Your task to perform on an android device: open app "Skype" (install if not already installed) and go to login screen Image 0: 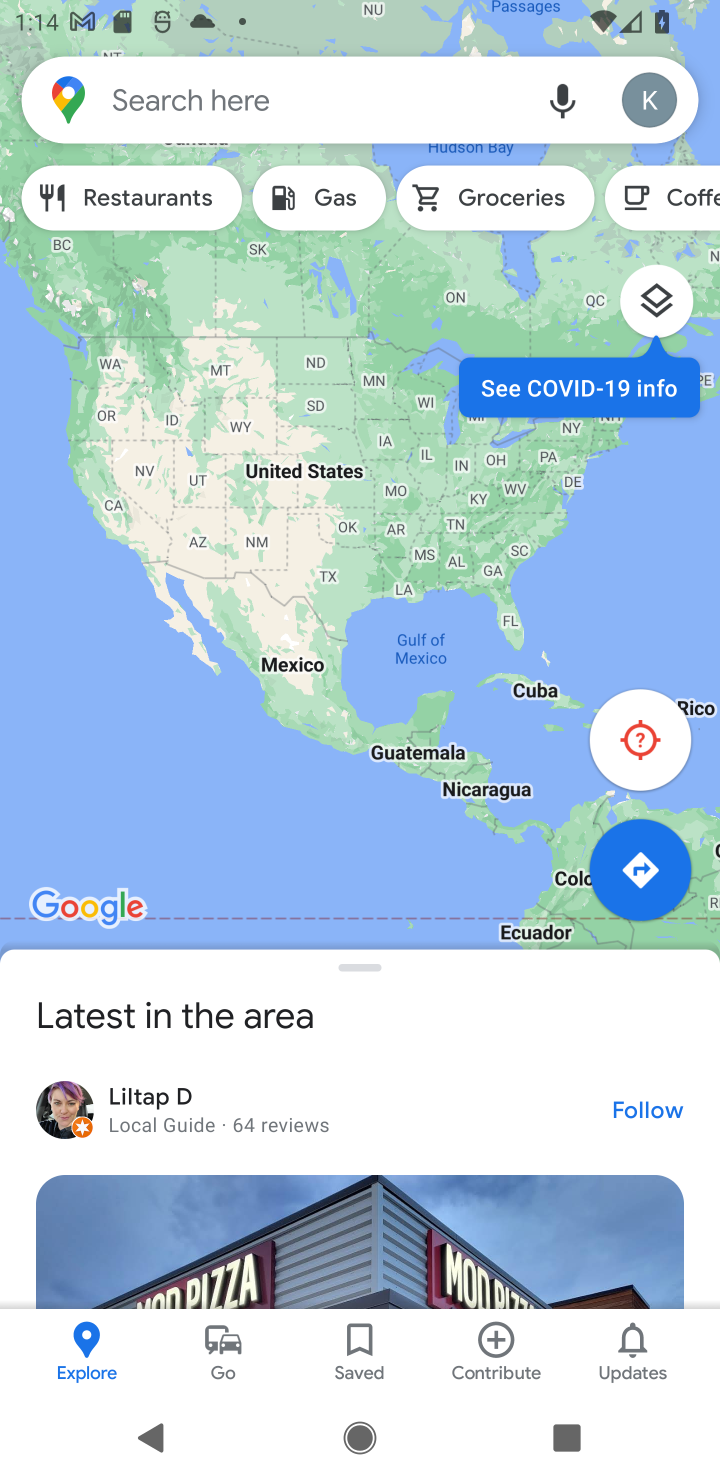
Step 0: press home button
Your task to perform on an android device: open app "Skype" (install if not already installed) and go to login screen Image 1: 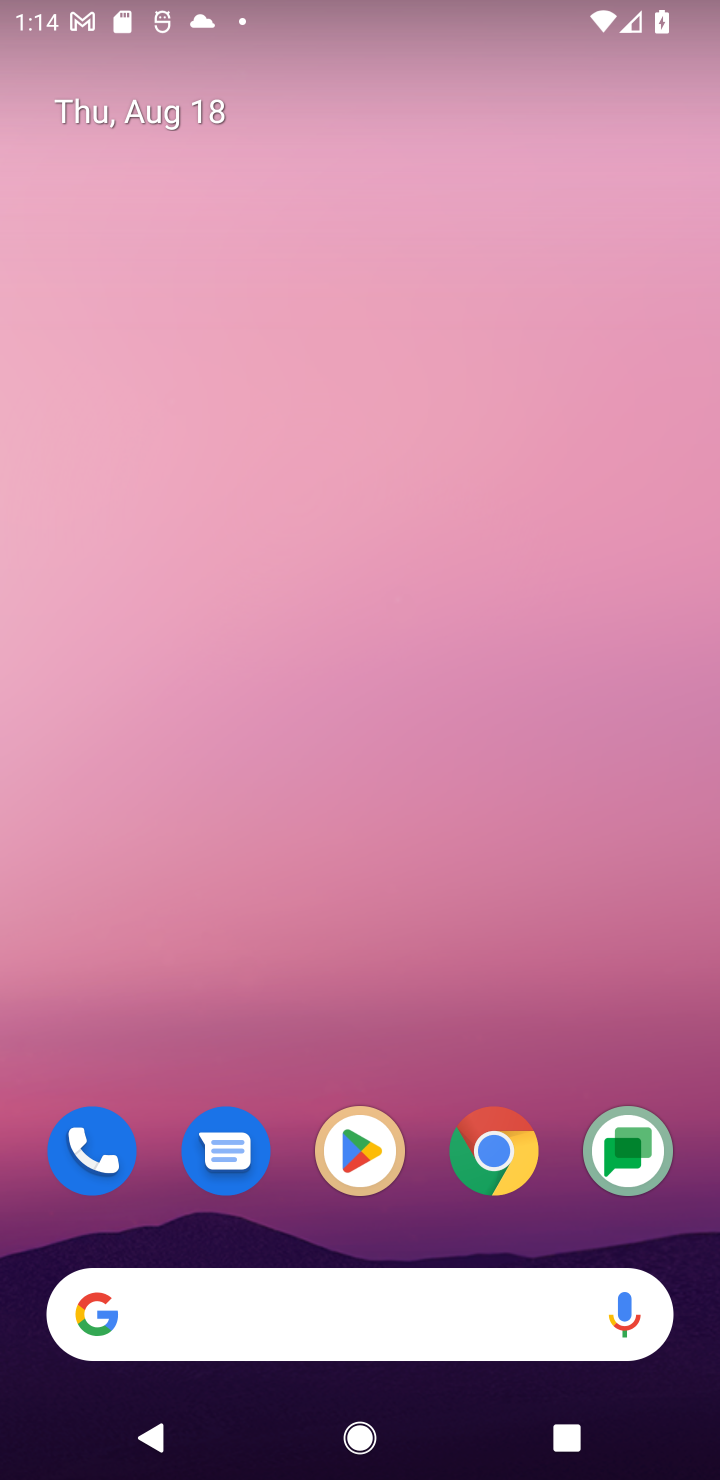
Step 1: click (361, 1165)
Your task to perform on an android device: open app "Skype" (install if not already installed) and go to login screen Image 2: 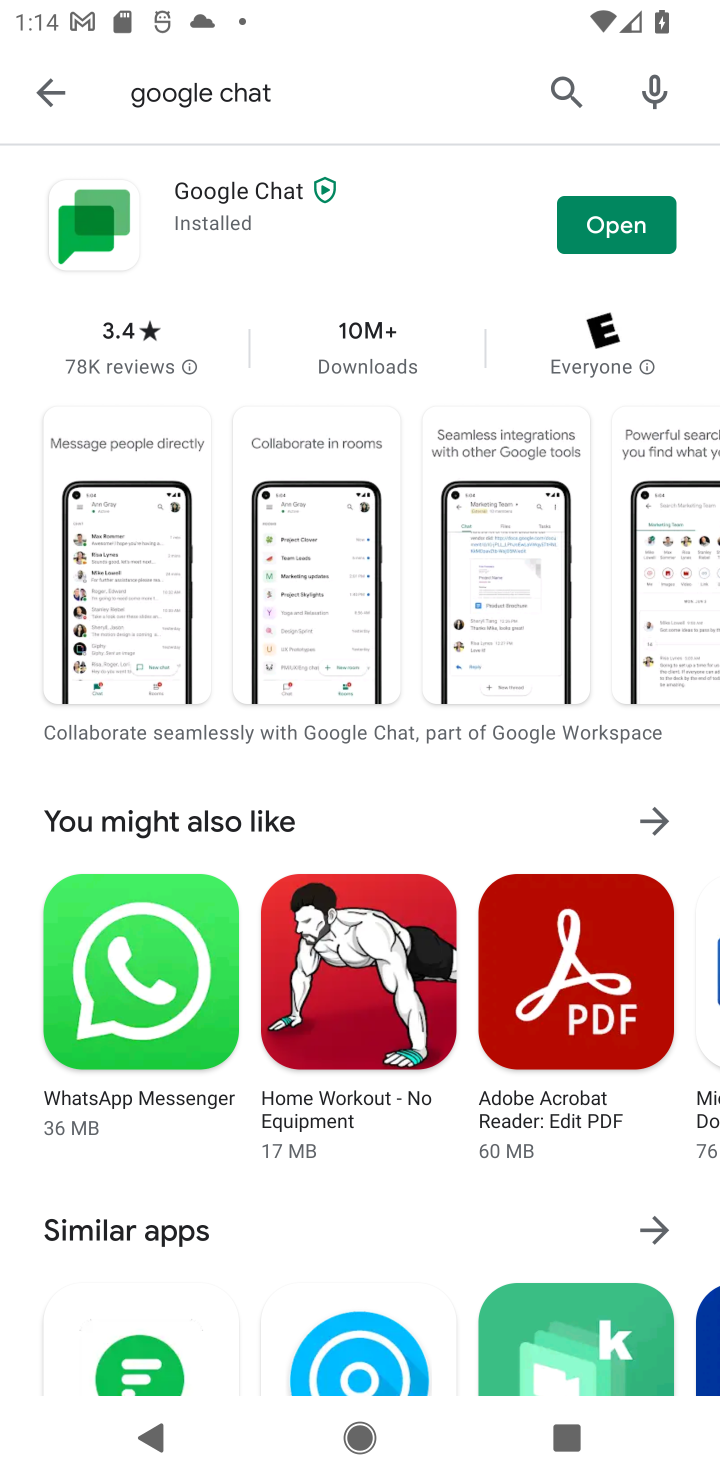
Step 2: click (45, 92)
Your task to perform on an android device: open app "Skype" (install if not already installed) and go to login screen Image 3: 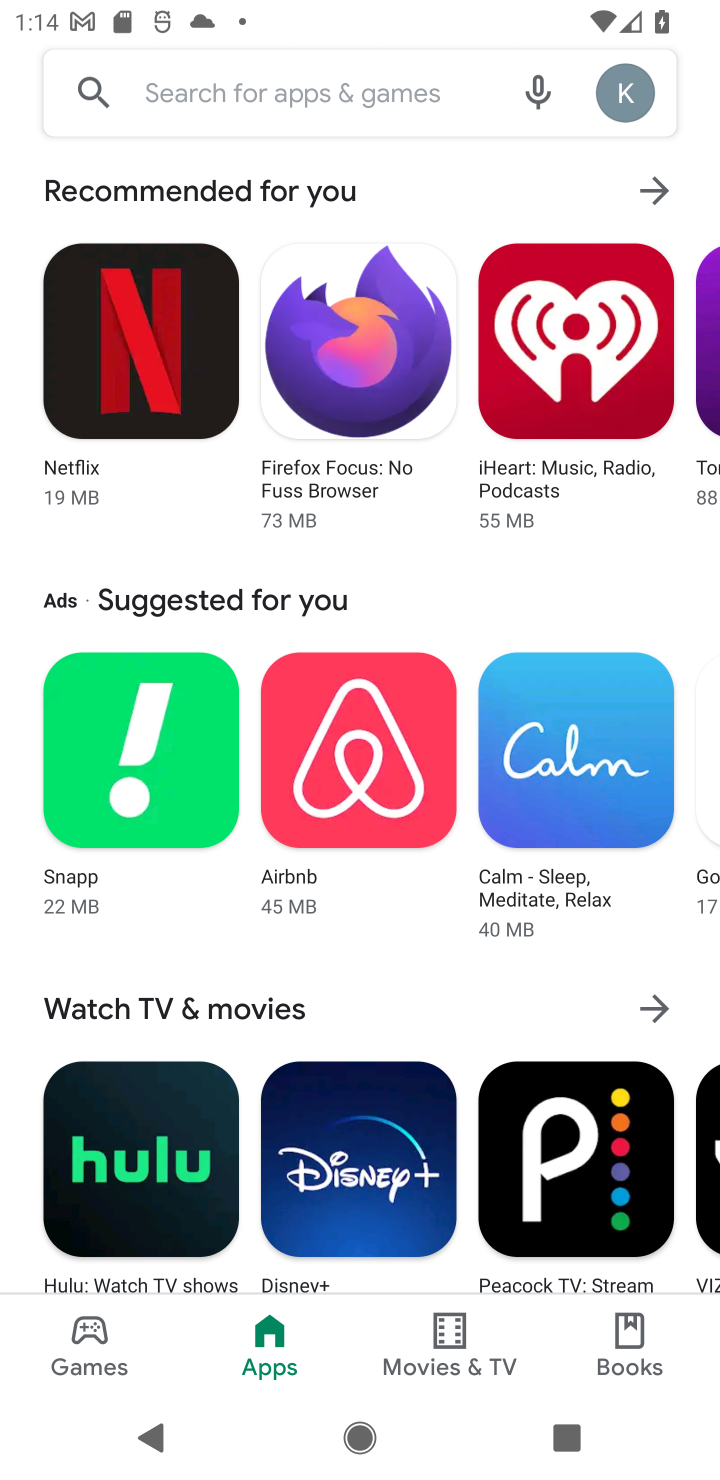
Step 3: click (173, 73)
Your task to perform on an android device: open app "Skype" (install if not already installed) and go to login screen Image 4: 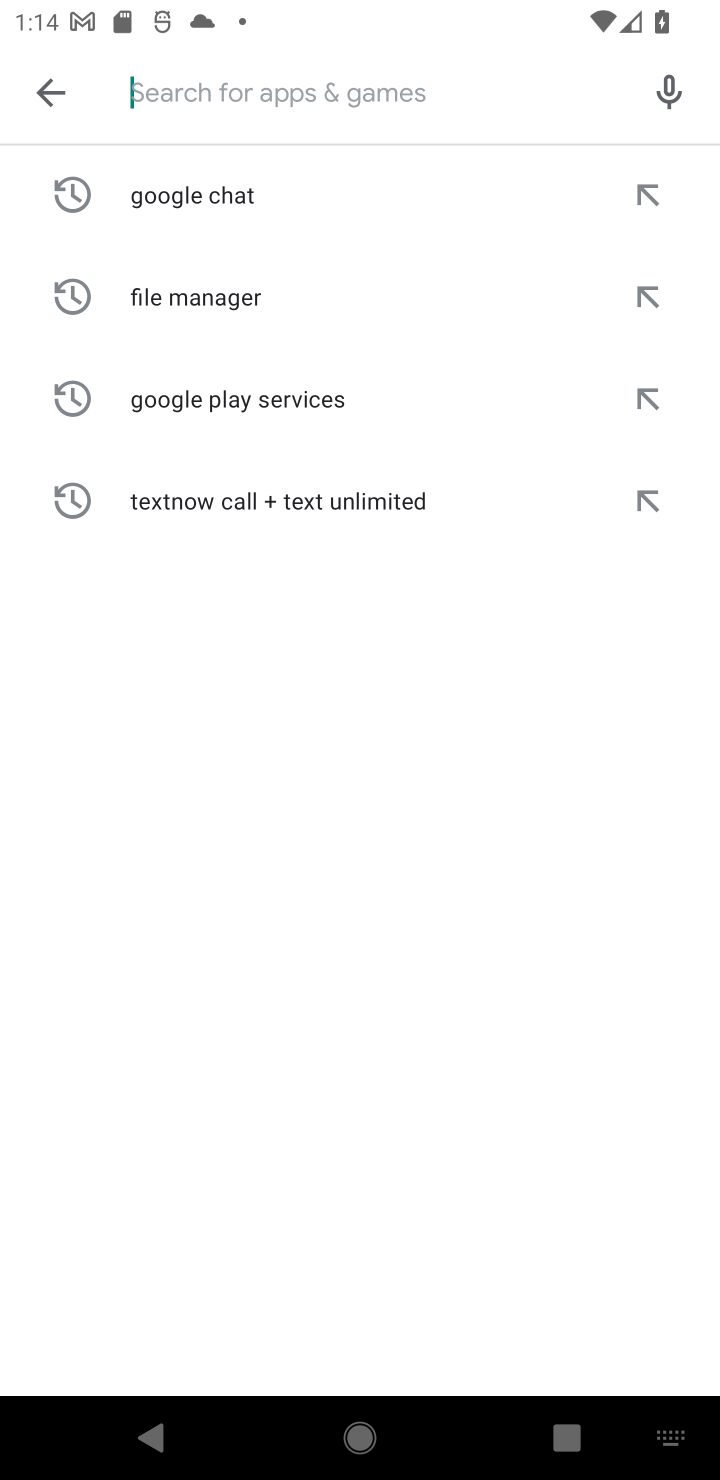
Step 4: type "Skype"
Your task to perform on an android device: open app "Skype" (install if not already installed) and go to login screen Image 5: 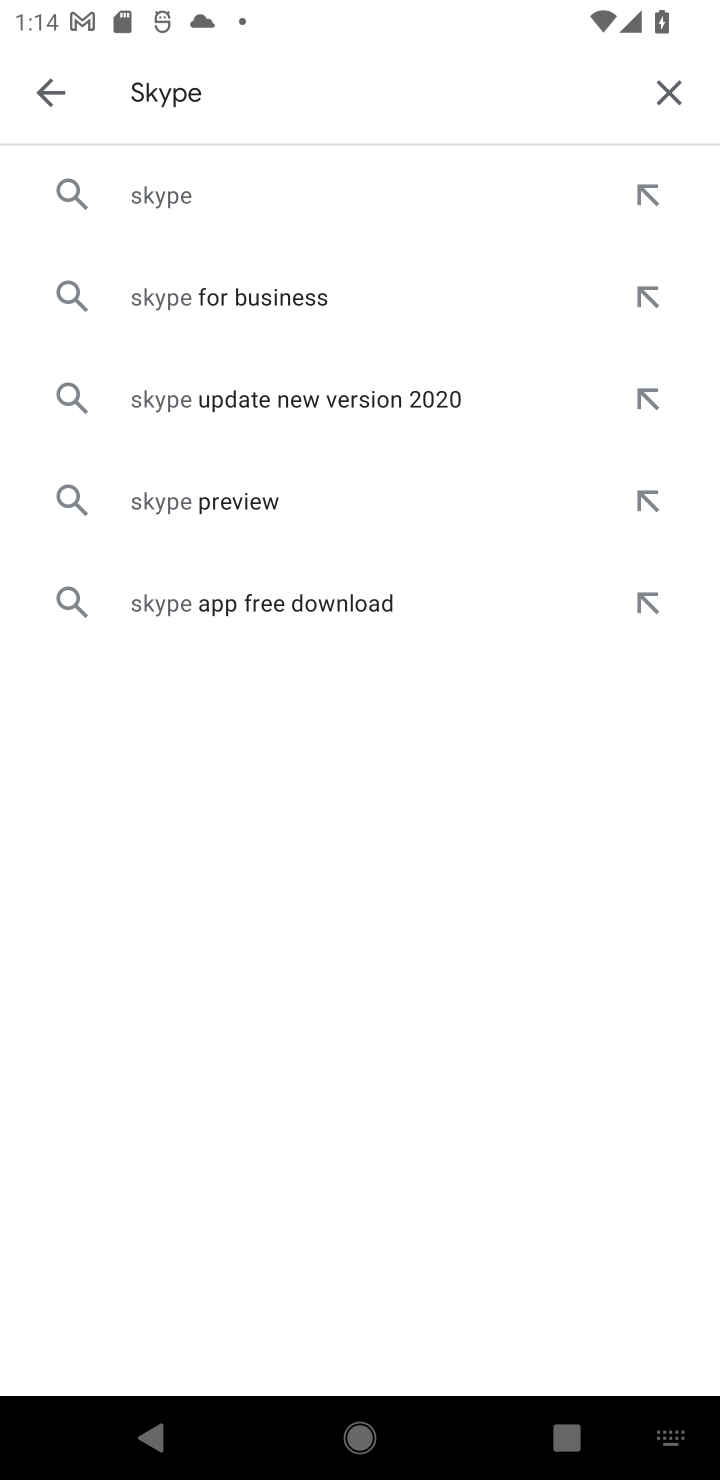
Step 5: click (180, 179)
Your task to perform on an android device: open app "Skype" (install if not already installed) and go to login screen Image 6: 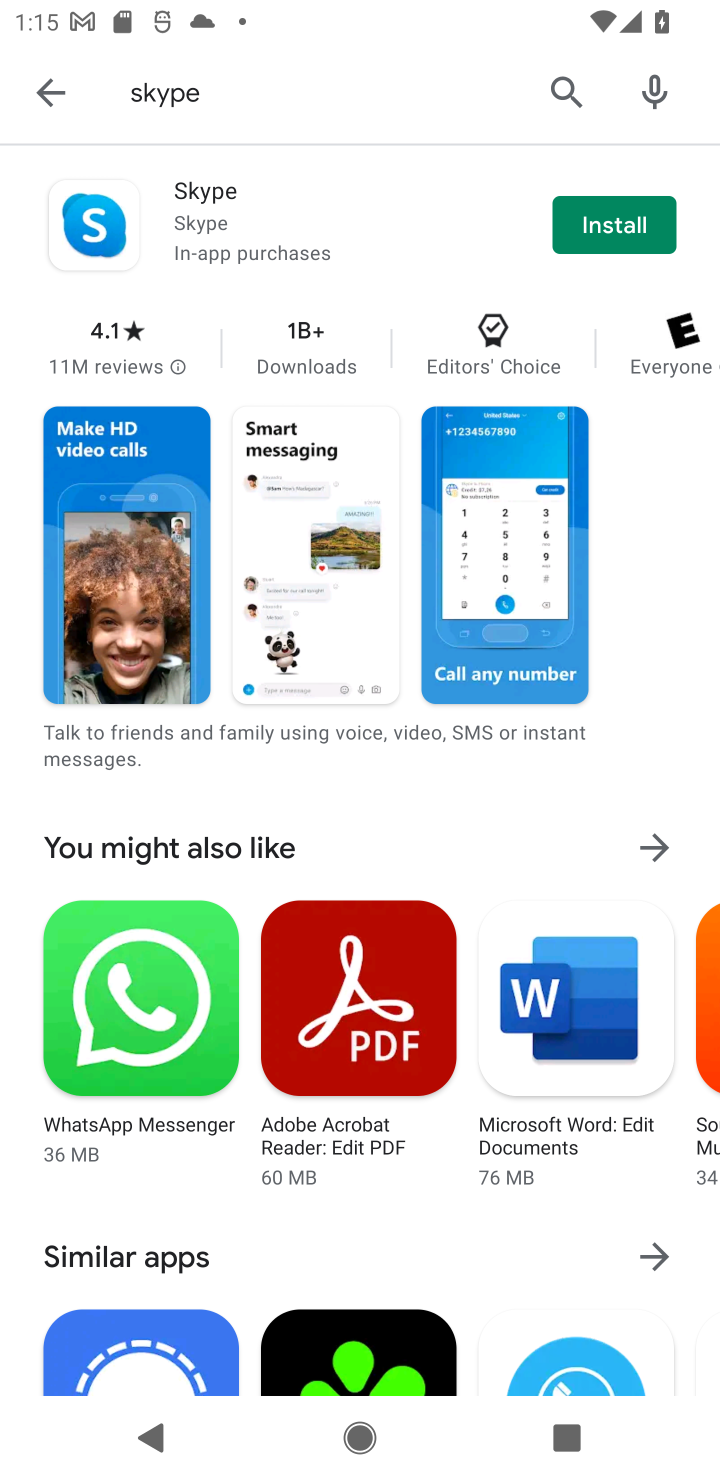
Step 6: click (562, 222)
Your task to perform on an android device: open app "Skype" (install if not already installed) and go to login screen Image 7: 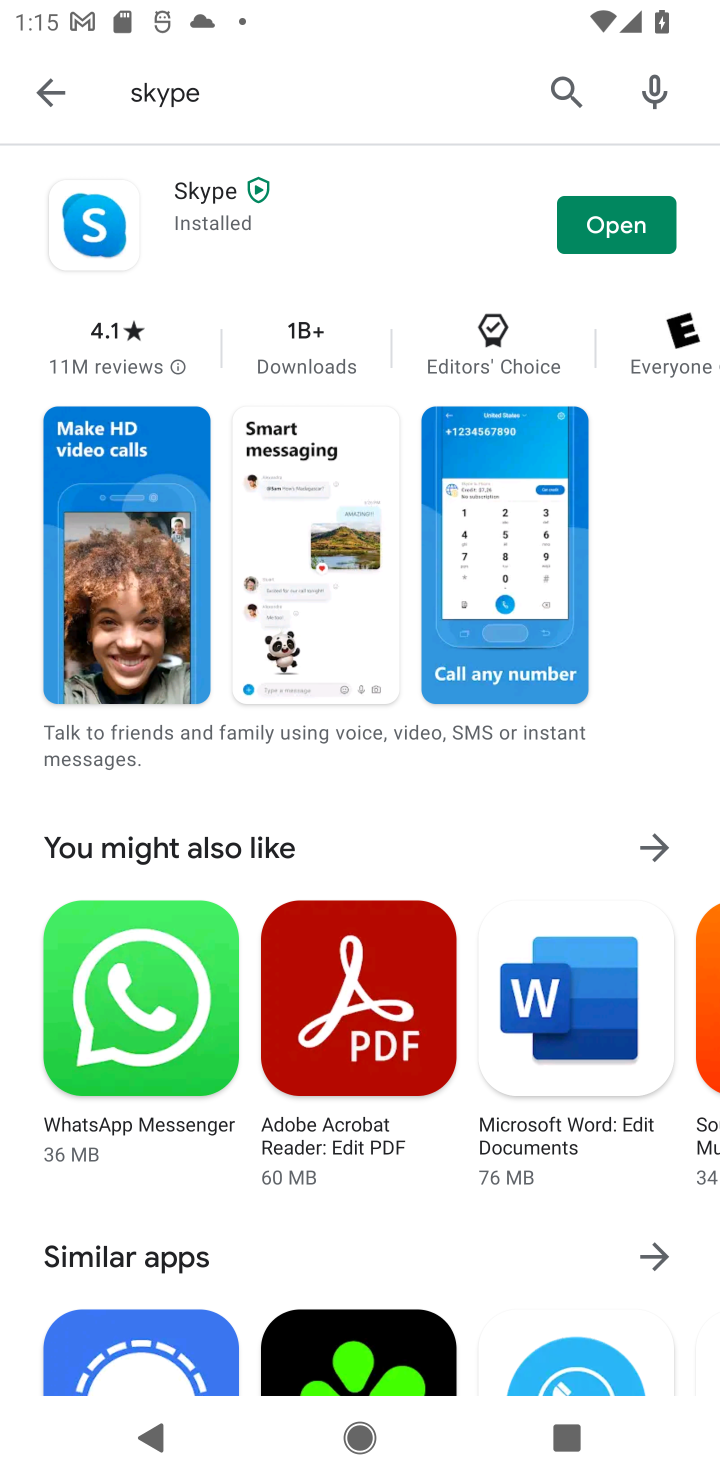
Step 7: click (562, 222)
Your task to perform on an android device: open app "Skype" (install if not already installed) and go to login screen Image 8: 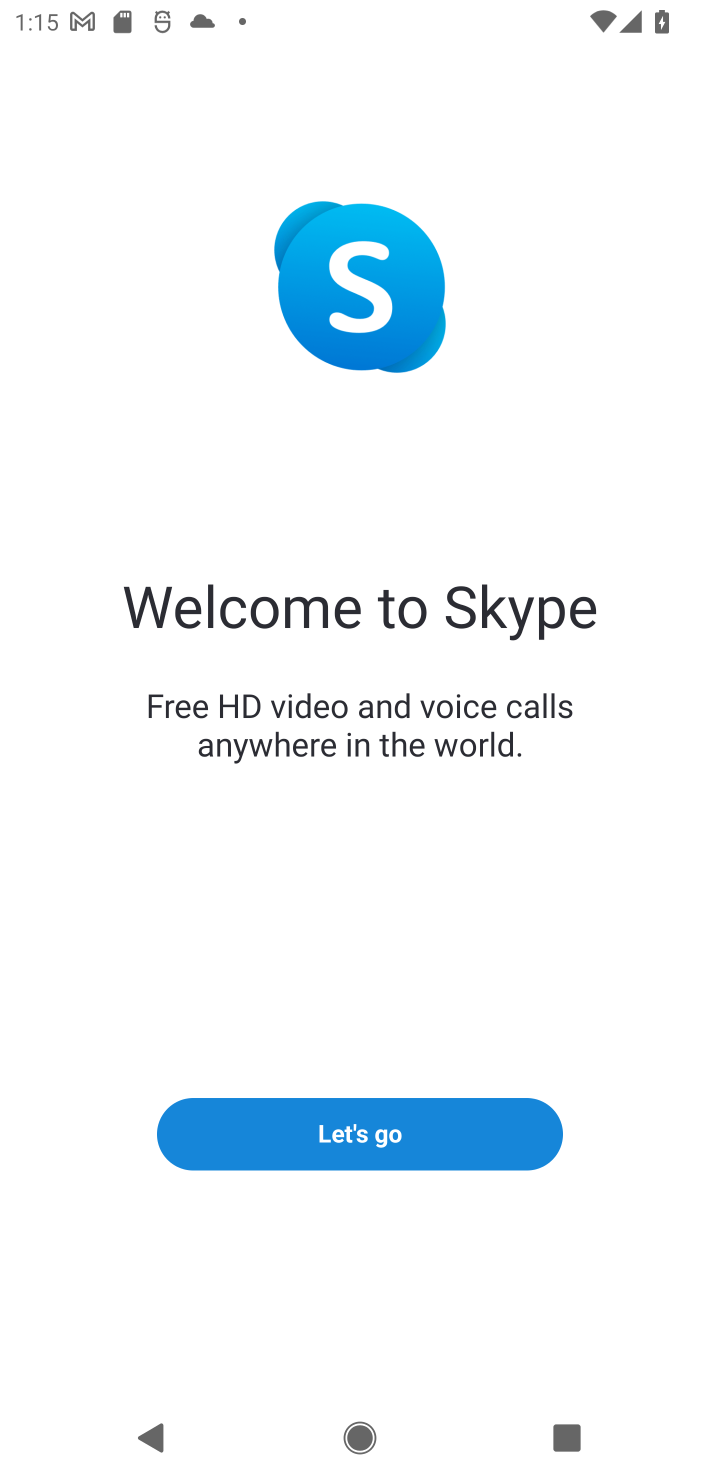
Step 8: task complete